Your task to perform on an android device: turn on bluetooth scan Image 0: 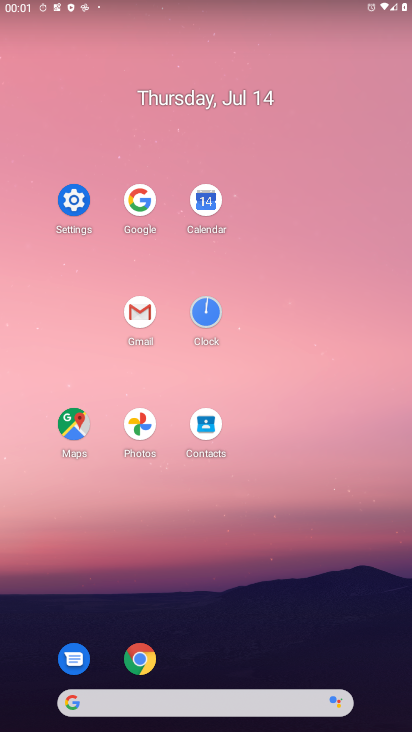
Step 0: click (83, 201)
Your task to perform on an android device: turn on bluetooth scan Image 1: 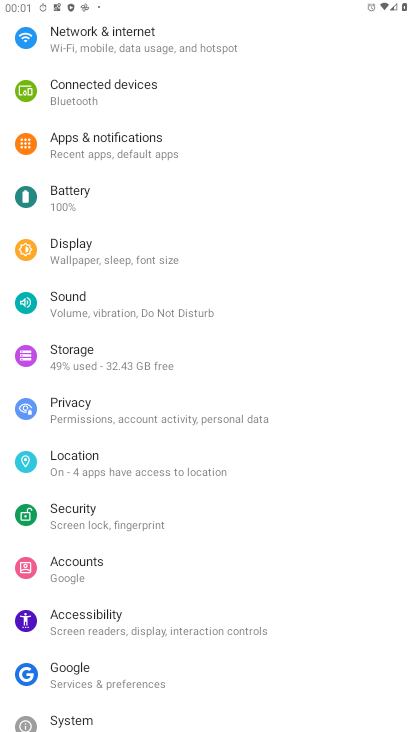
Step 1: click (197, 458)
Your task to perform on an android device: turn on bluetooth scan Image 2: 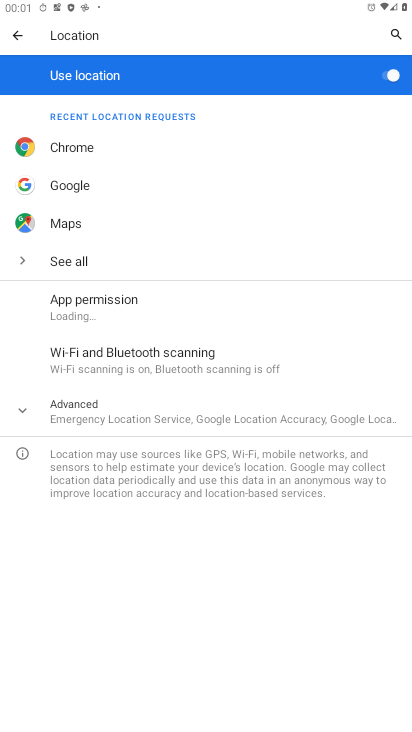
Step 2: click (185, 396)
Your task to perform on an android device: turn on bluetooth scan Image 3: 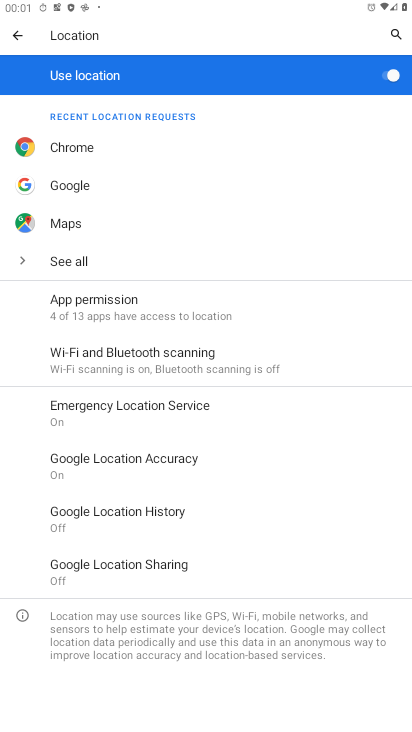
Step 3: click (202, 353)
Your task to perform on an android device: turn on bluetooth scan Image 4: 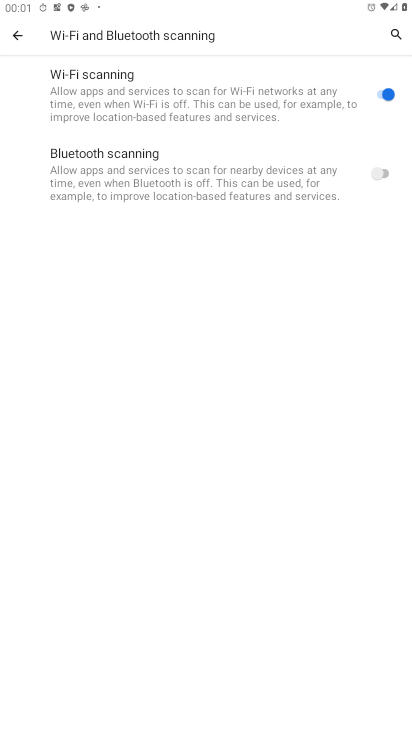
Step 4: click (373, 173)
Your task to perform on an android device: turn on bluetooth scan Image 5: 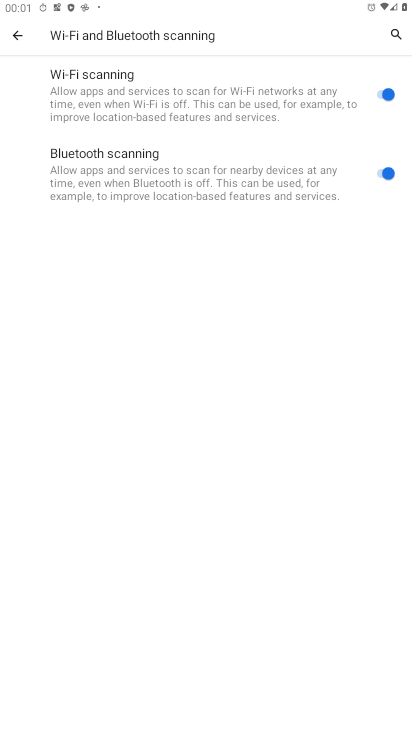
Step 5: task complete